Your task to perform on an android device: make emails show in primary in the gmail app Image 0: 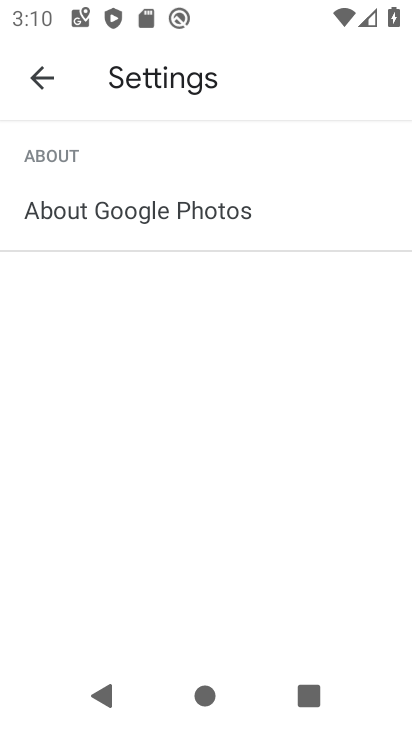
Step 0: press back button
Your task to perform on an android device: make emails show in primary in the gmail app Image 1: 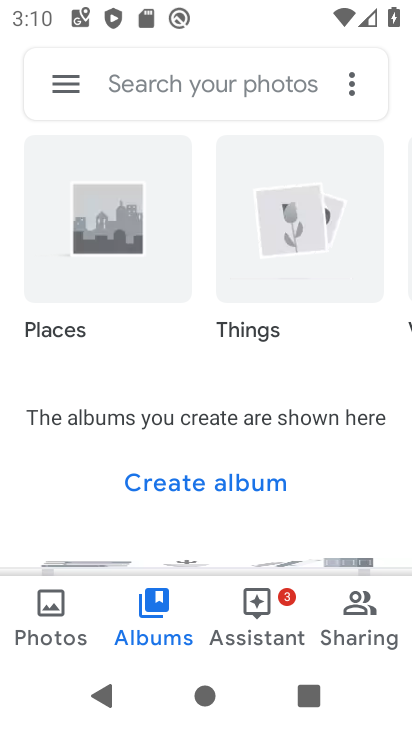
Step 1: press back button
Your task to perform on an android device: make emails show in primary in the gmail app Image 2: 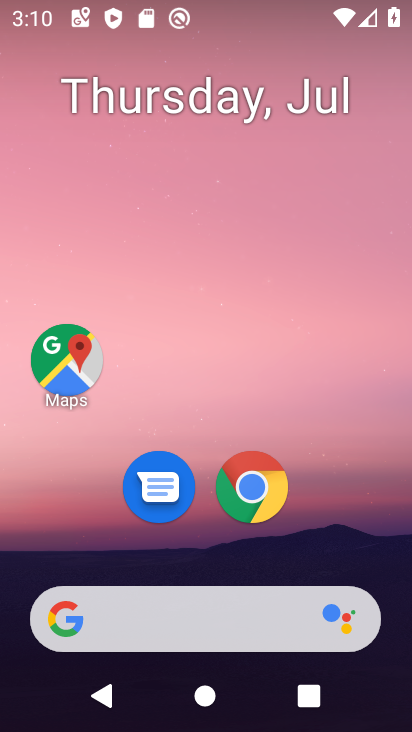
Step 2: drag from (208, 547) to (243, 22)
Your task to perform on an android device: make emails show in primary in the gmail app Image 3: 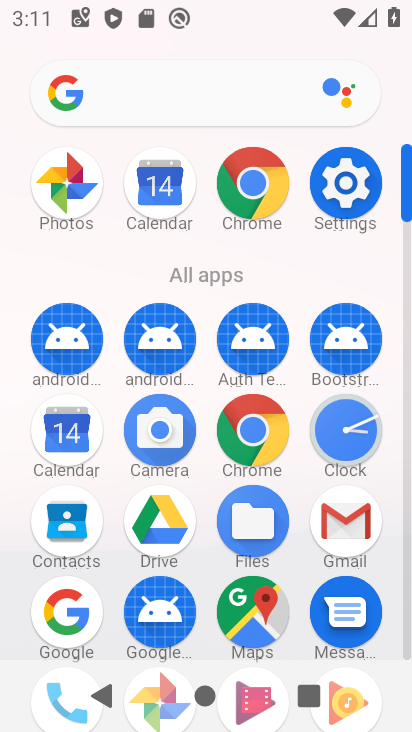
Step 3: click (345, 523)
Your task to perform on an android device: make emails show in primary in the gmail app Image 4: 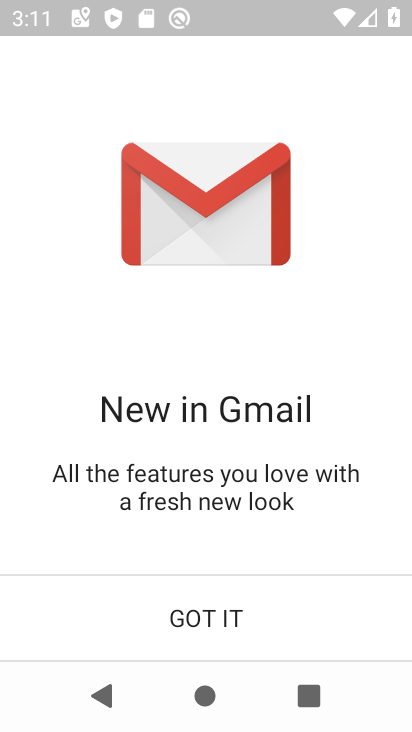
Step 4: click (201, 632)
Your task to perform on an android device: make emails show in primary in the gmail app Image 5: 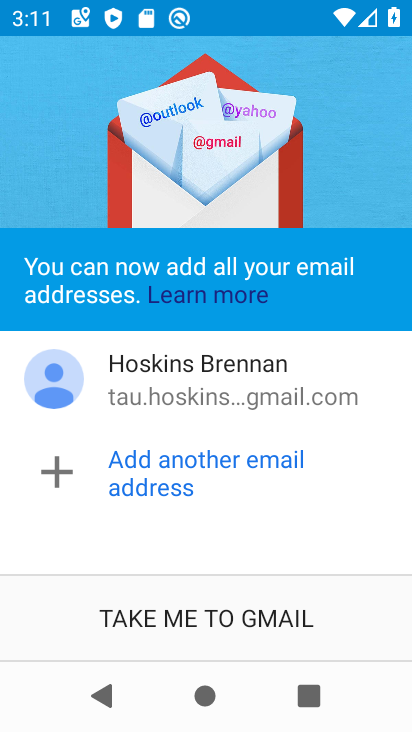
Step 5: click (191, 624)
Your task to perform on an android device: make emails show in primary in the gmail app Image 6: 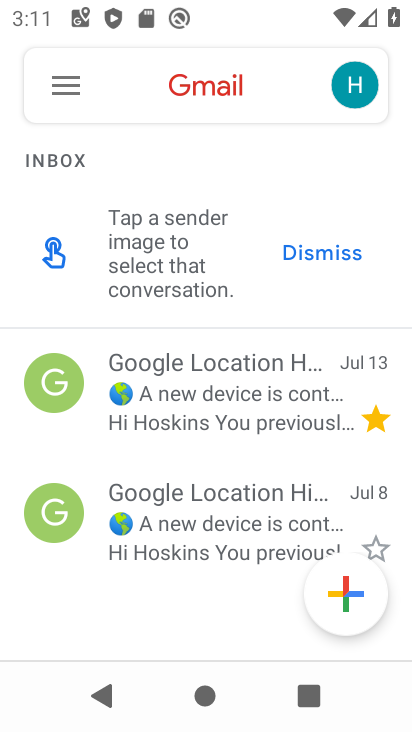
Step 6: click (69, 78)
Your task to perform on an android device: make emails show in primary in the gmail app Image 7: 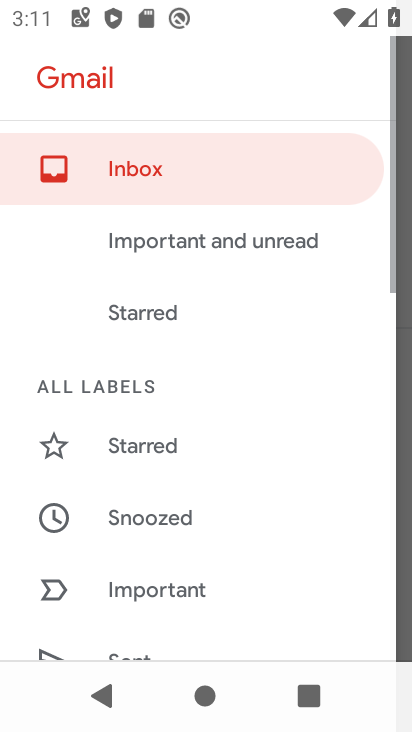
Step 7: drag from (185, 573) to (273, 141)
Your task to perform on an android device: make emails show in primary in the gmail app Image 8: 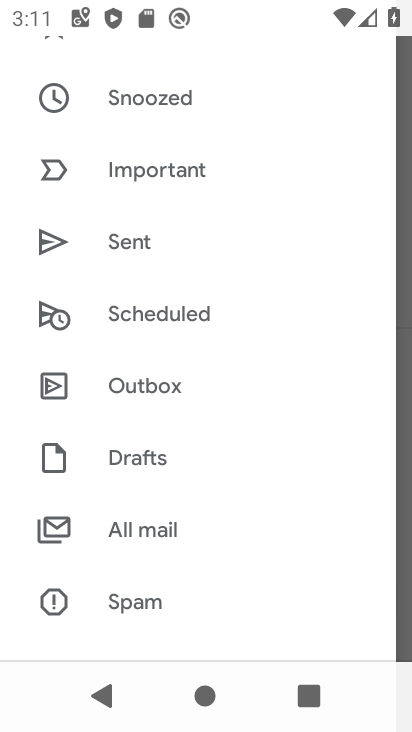
Step 8: drag from (163, 589) to (263, 58)
Your task to perform on an android device: make emails show in primary in the gmail app Image 9: 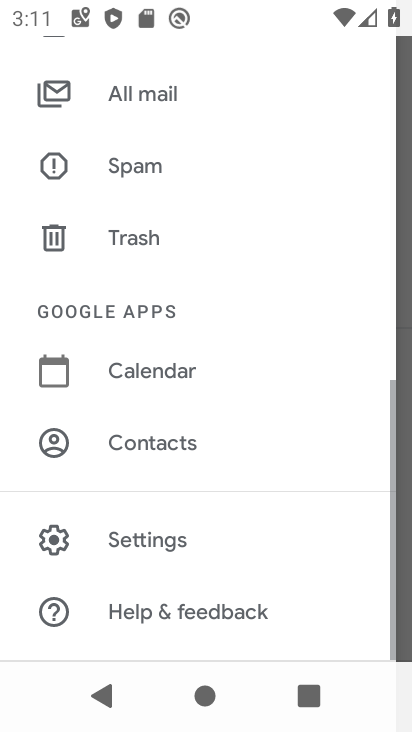
Step 9: click (127, 541)
Your task to perform on an android device: make emails show in primary in the gmail app Image 10: 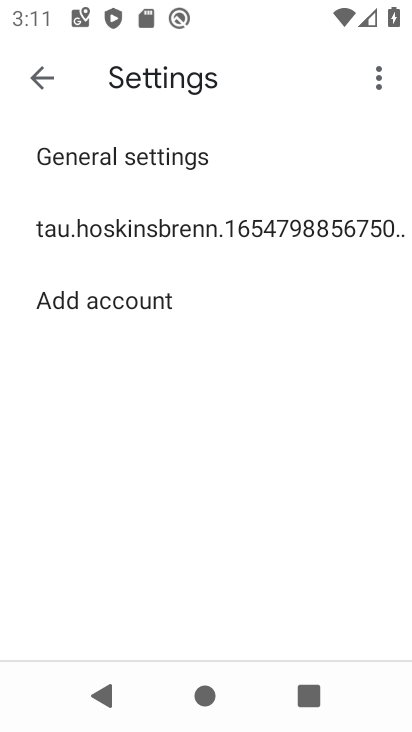
Step 10: click (170, 219)
Your task to perform on an android device: make emails show in primary in the gmail app Image 11: 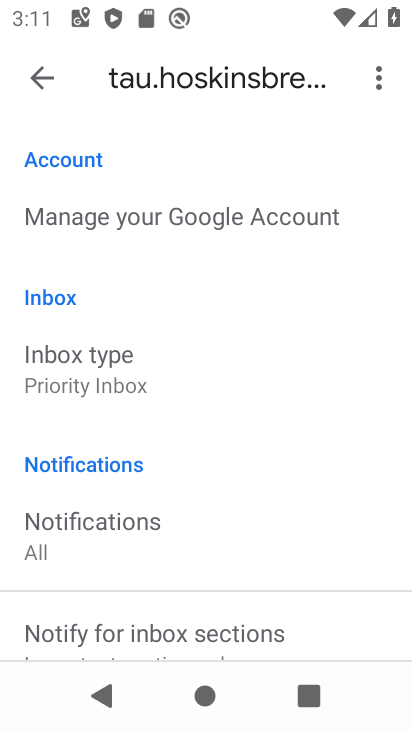
Step 11: task complete